Your task to perform on an android device: stop showing notifications on the lock screen Image 0: 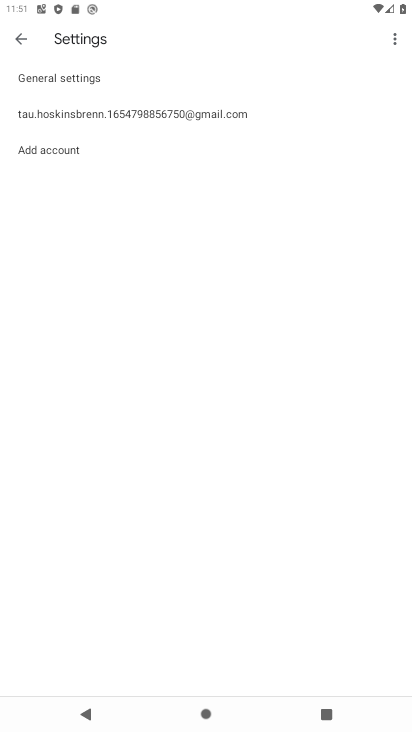
Step 0: press home button
Your task to perform on an android device: stop showing notifications on the lock screen Image 1: 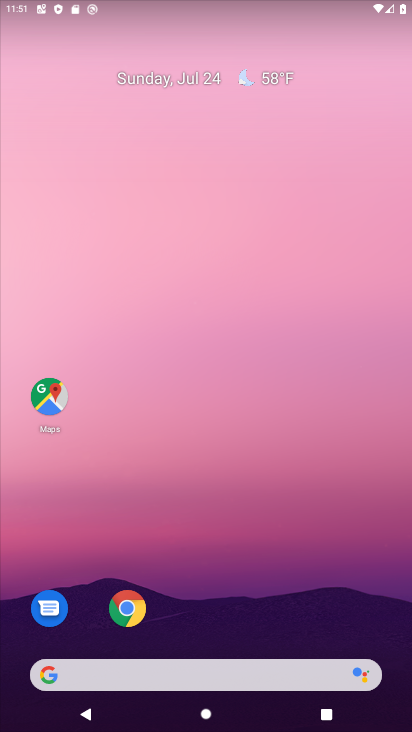
Step 1: drag from (221, 655) to (203, 155)
Your task to perform on an android device: stop showing notifications on the lock screen Image 2: 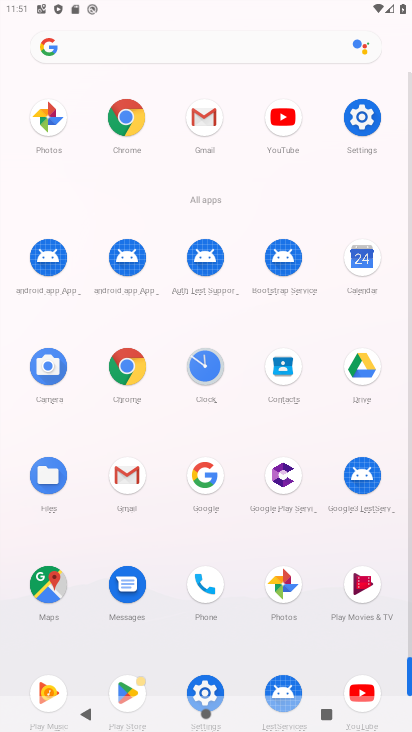
Step 2: click (199, 683)
Your task to perform on an android device: stop showing notifications on the lock screen Image 3: 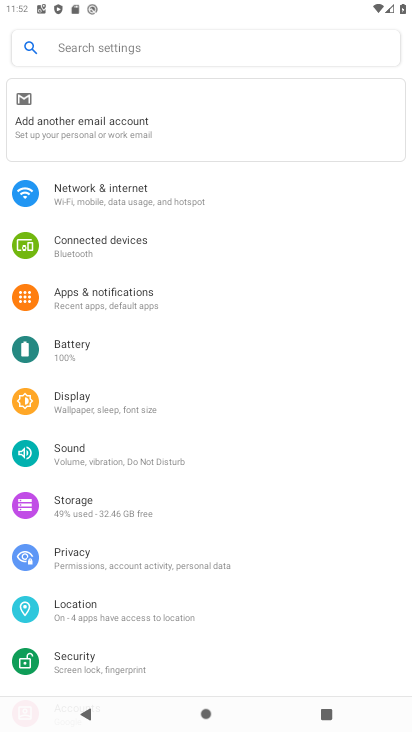
Step 3: click (140, 299)
Your task to perform on an android device: stop showing notifications on the lock screen Image 4: 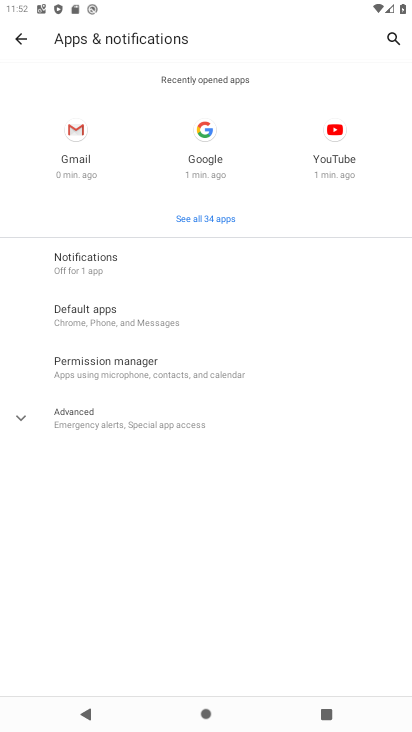
Step 4: click (93, 273)
Your task to perform on an android device: stop showing notifications on the lock screen Image 5: 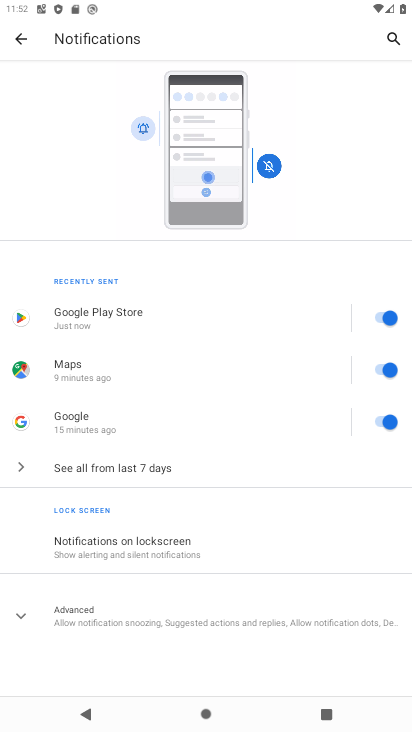
Step 5: click (136, 541)
Your task to perform on an android device: stop showing notifications on the lock screen Image 6: 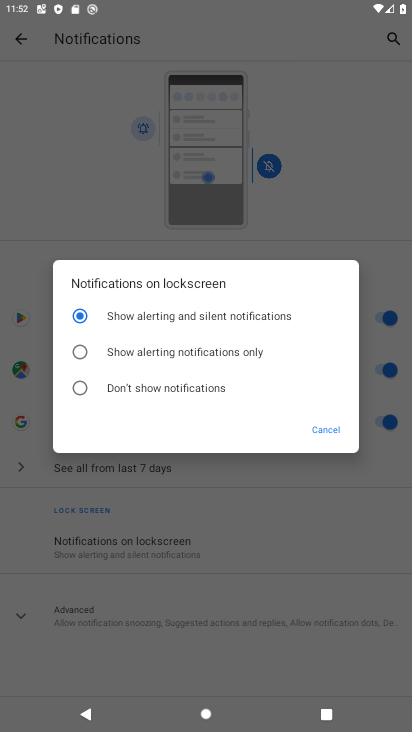
Step 6: click (152, 391)
Your task to perform on an android device: stop showing notifications on the lock screen Image 7: 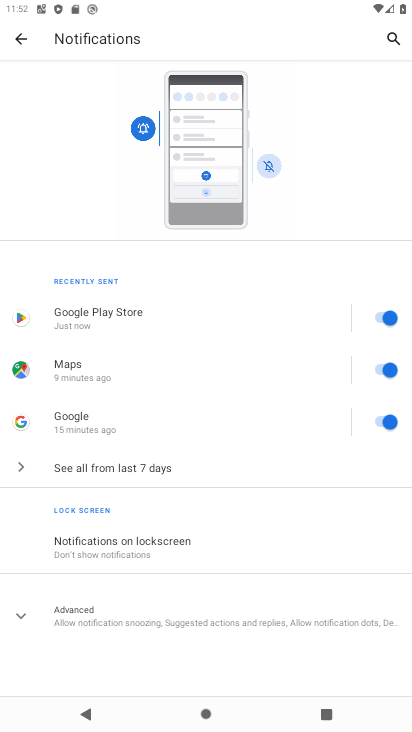
Step 7: task complete